Your task to perform on an android device: allow cookies in the chrome app Image 0: 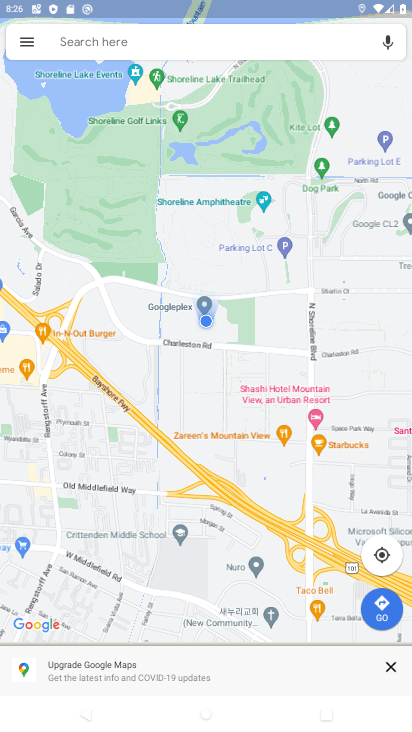
Step 0: press back button
Your task to perform on an android device: allow cookies in the chrome app Image 1: 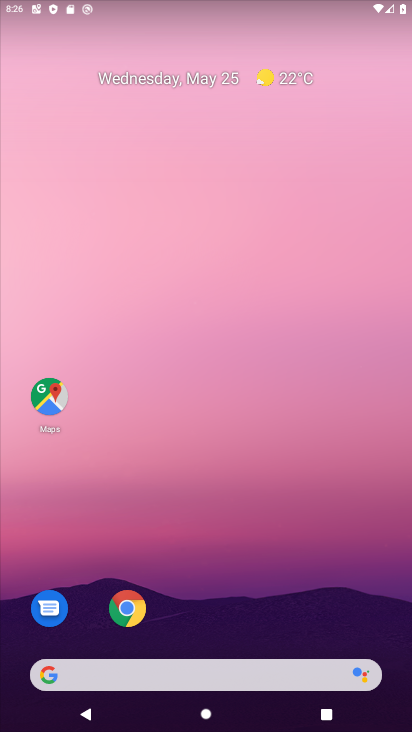
Step 1: click (128, 607)
Your task to perform on an android device: allow cookies in the chrome app Image 2: 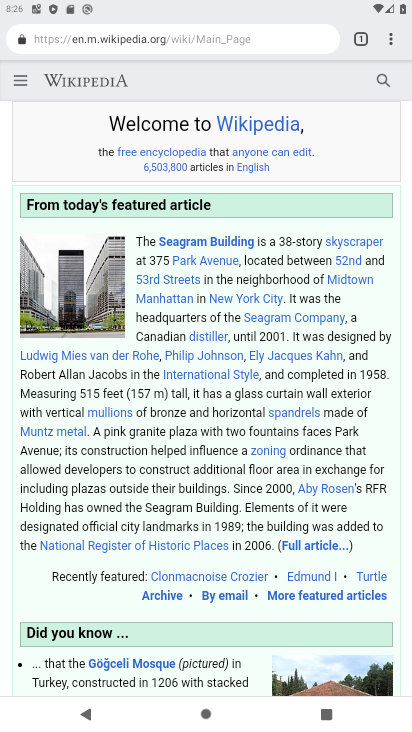
Step 2: click (392, 40)
Your task to perform on an android device: allow cookies in the chrome app Image 3: 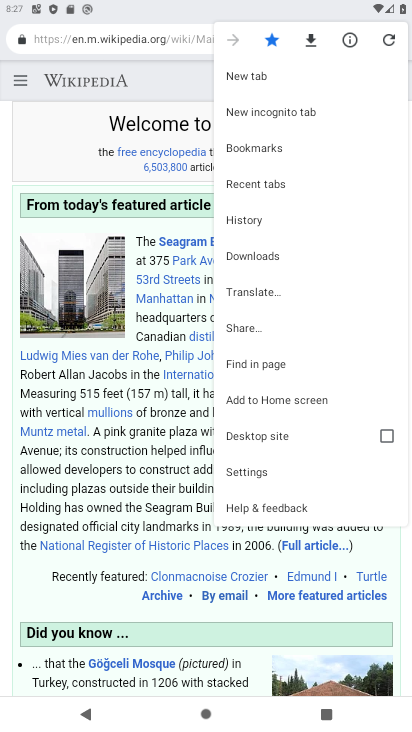
Step 3: click (252, 471)
Your task to perform on an android device: allow cookies in the chrome app Image 4: 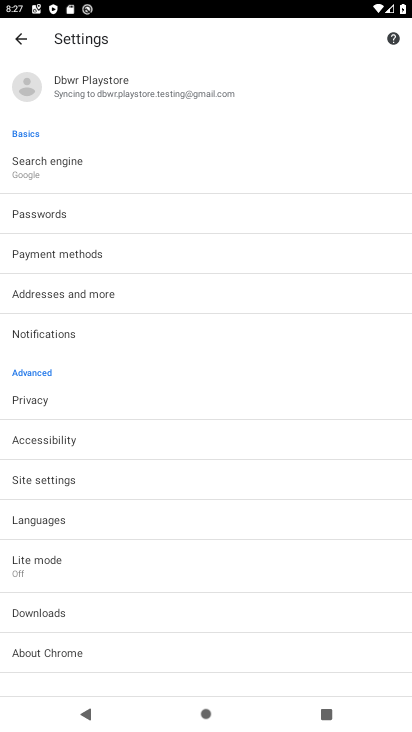
Step 4: click (63, 479)
Your task to perform on an android device: allow cookies in the chrome app Image 5: 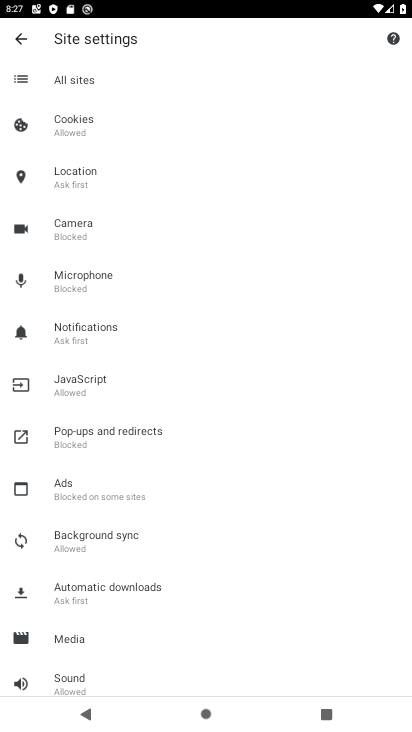
Step 5: click (67, 130)
Your task to perform on an android device: allow cookies in the chrome app Image 6: 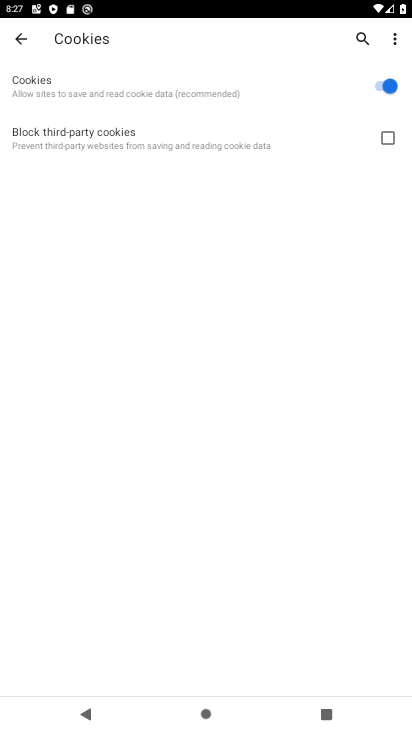
Step 6: click (386, 130)
Your task to perform on an android device: allow cookies in the chrome app Image 7: 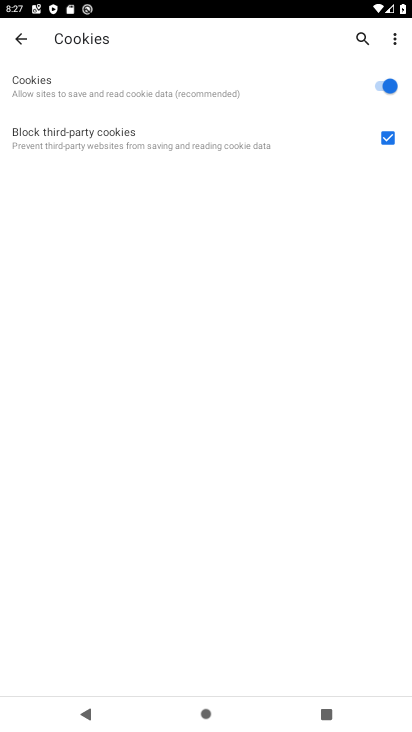
Step 7: task complete